Your task to perform on an android device: toggle javascript in the chrome app Image 0: 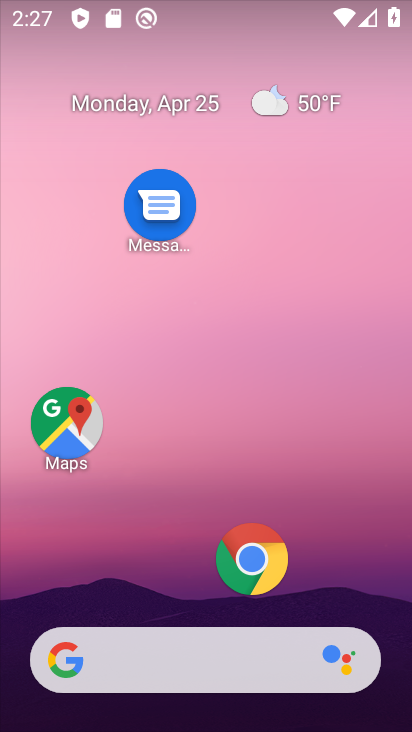
Step 0: click (249, 571)
Your task to perform on an android device: toggle javascript in the chrome app Image 1: 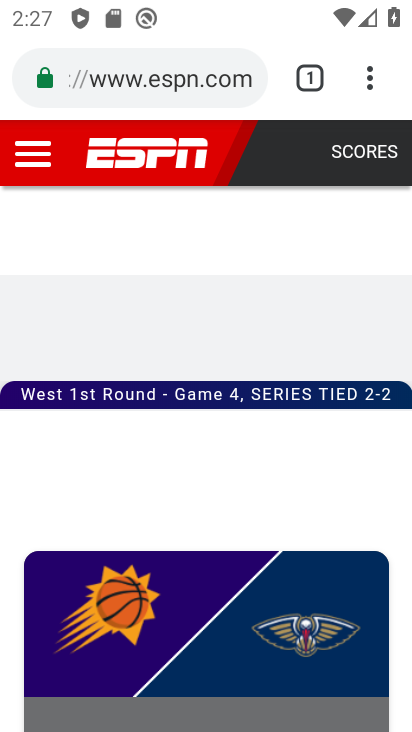
Step 1: click (371, 91)
Your task to perform on an android device: toggle javascript in the chrome app Image 2: 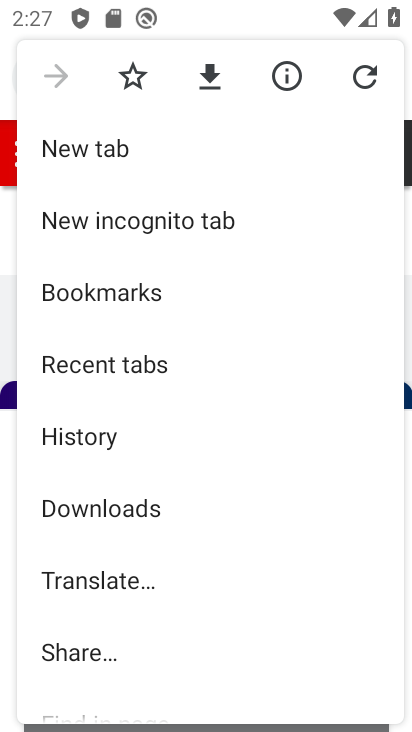
Step 2: drag from (173, 586) to (248, 164)
Your task to perform on an android device: toggle javascript in the chrome app Image 3: 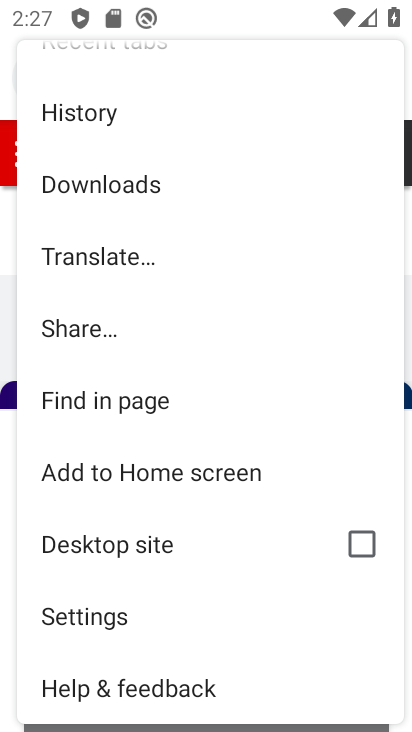
Step 3: click (100, 627)
Your task to perform on an android device: toggle javascript in the chrome app Image 4: 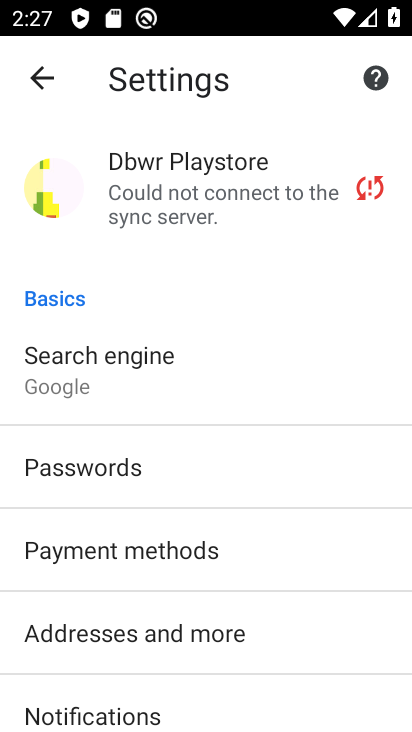
Step 4: drag from (116, 571) to (187, 260)
Your task to perform on an android device: toggle javascript in the chrome app Image 5: 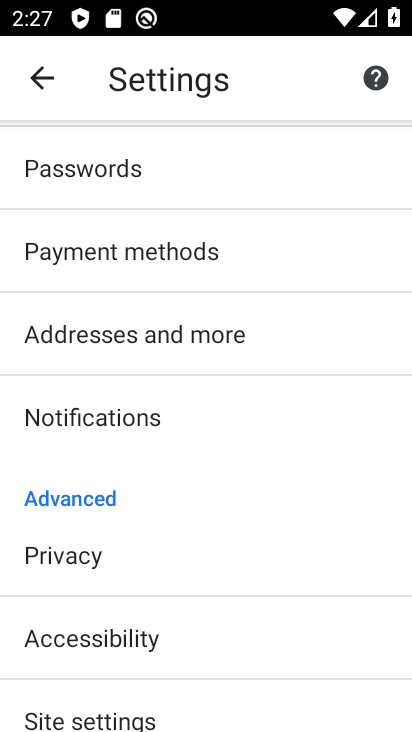
Step 5: drag from (94, 649) to (164, 338)
Your task to perform on an android device: toggle javascript in the chrome app Image 6: 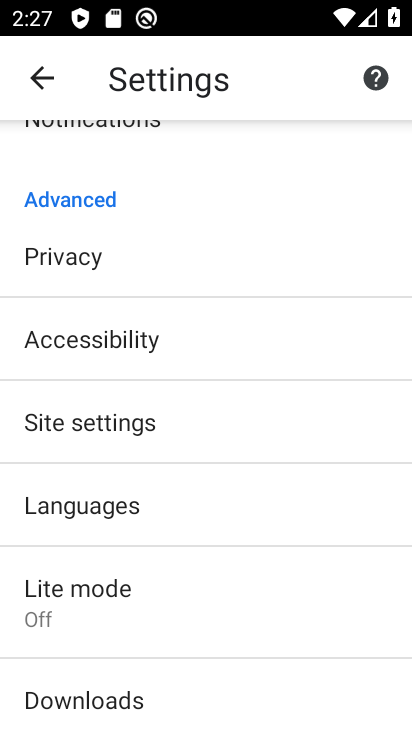
Step 6: click (118, 428)
Your task to perform on an android device: toggle javascript in the chrome app Image 7: 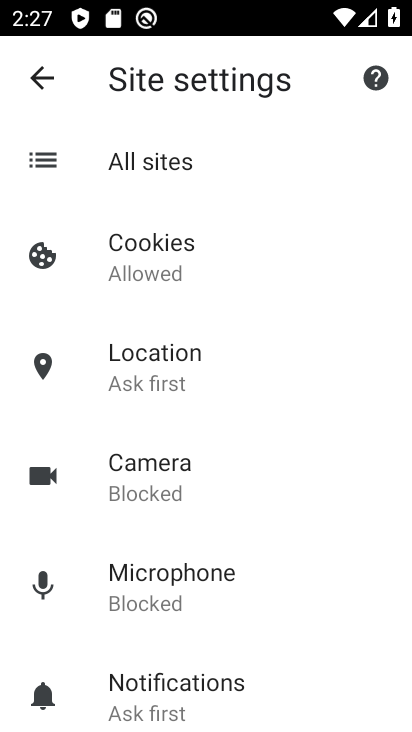
Step 7: drag from (138, 622) to (227, 246)
Your task to perform on an android device: toggle javascript in the chrome app Image 8: 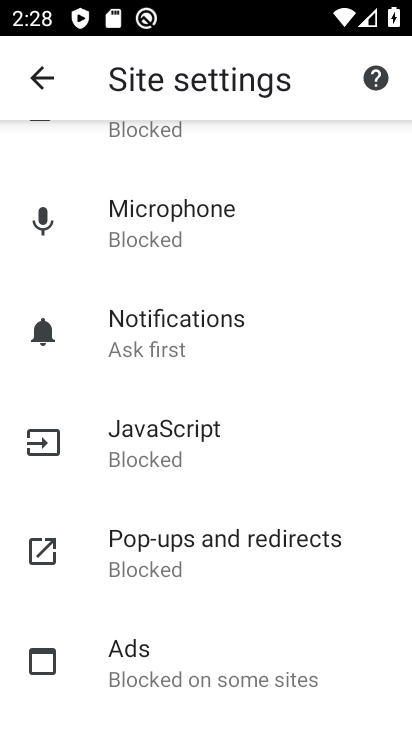
Step 8: click (191, 459)
Your task to perform on an android device: toggle javascript in the chrome app Image 9: 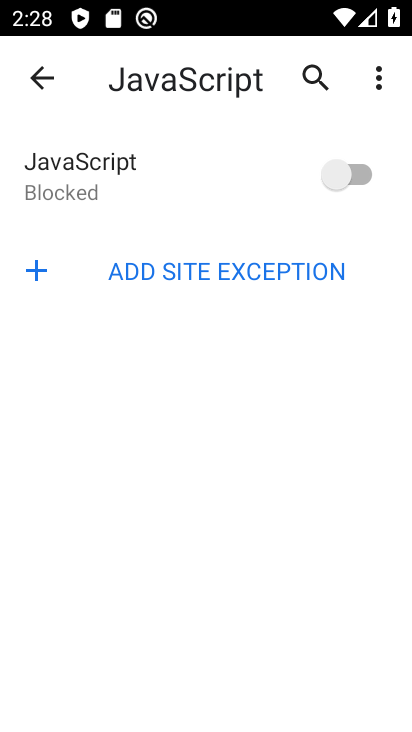
Step 9: click (341, 184)
Your task to perform on an android device: toggle javascript in the chrome app Image 10: 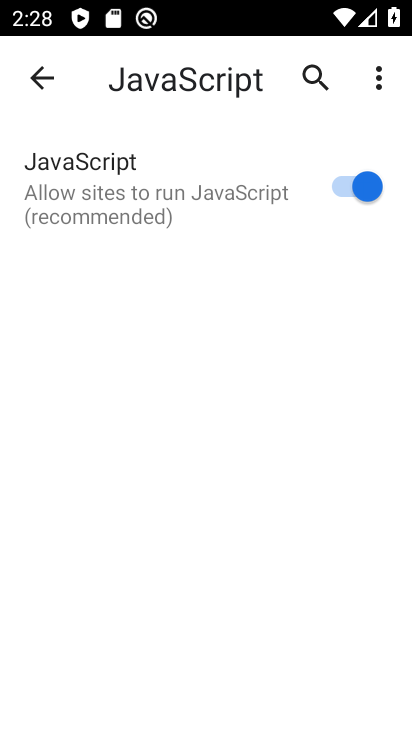
Step 10: task complete